Your task to perform on an android device: toggle notifications settings in the gmail app Image 0: 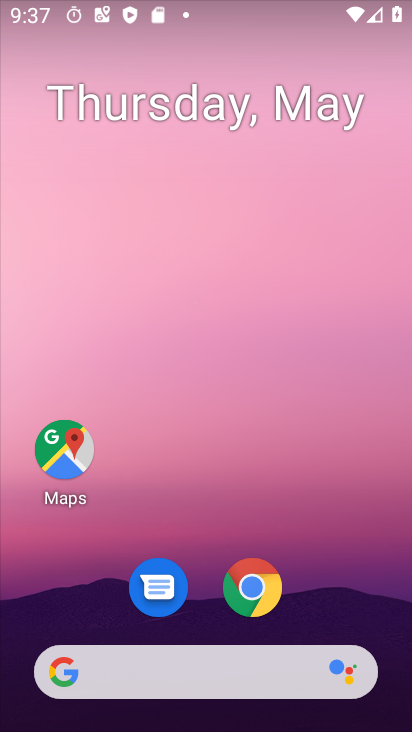
Step 0: drag from (354, 610) to (304, 13)
Your task to perform on an android device: toggle notifications settings in the gmail app Image 1: 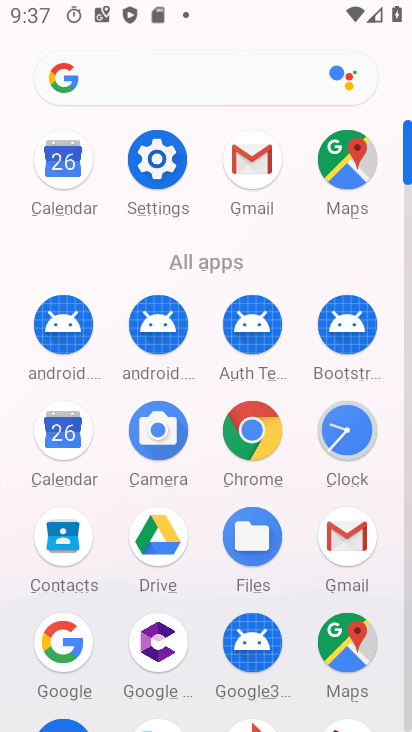
Step 1: click (258, 155)
Your task to perform on an android device: toggle notifications settings in the gmail app Image 2: 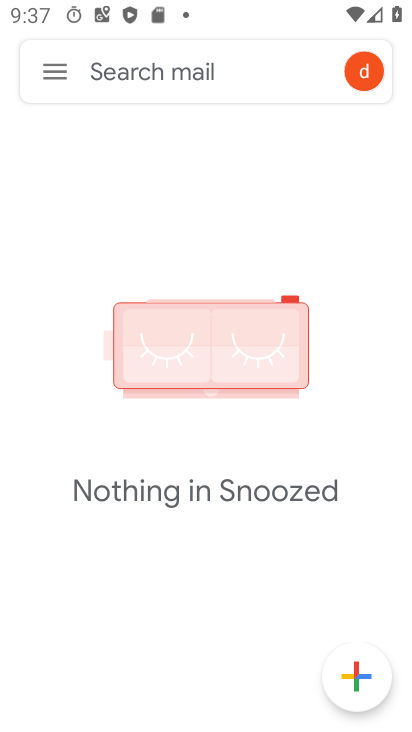
Step 2: click (48, 74)
Your task to perform on an android device: toggle notifications settings in the gmail app Image 3: 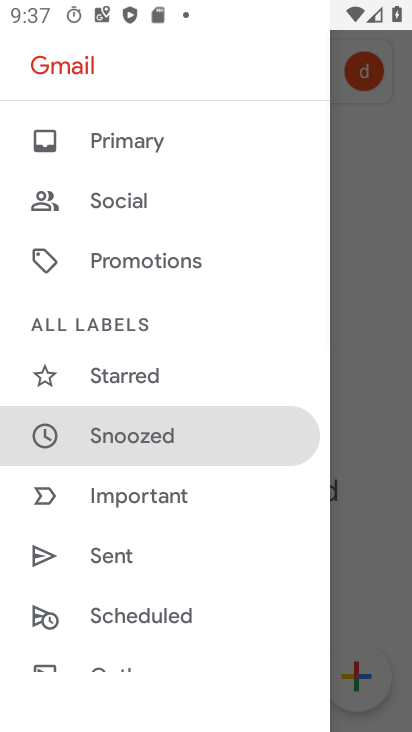
Step 3: drag from (246, 633) to (207, 123)
Your task to perform on an android device: toggle notifications settings in the gmail app Image 4: 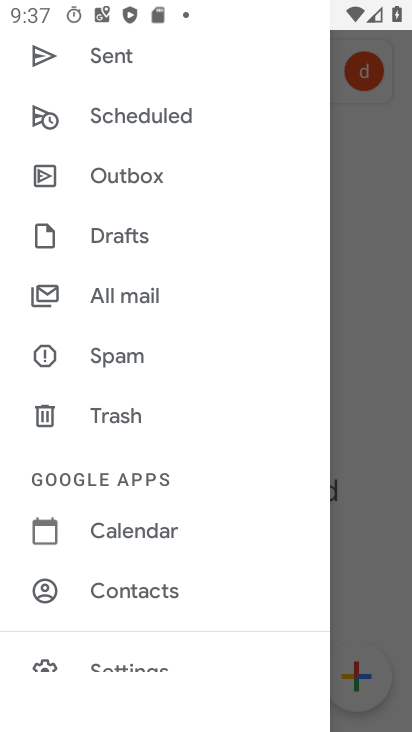
Step 4: drag from (236, 587) to (199, 180)
Your task to perform on an android device: toggle notifications settings in the gmail app Image 5: 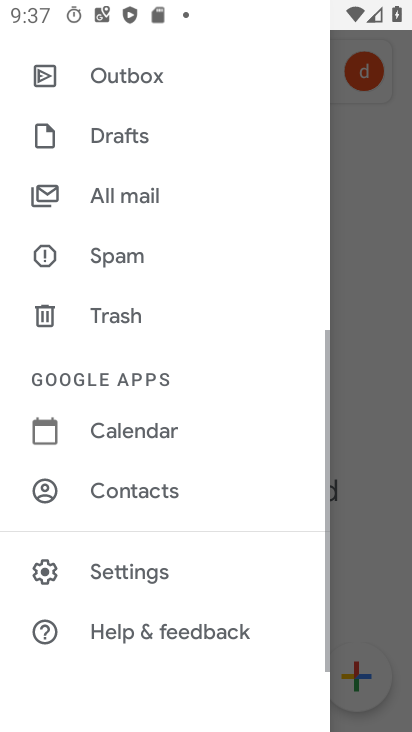
Step 5: click (126, 577)
Your task to perform on an android device: toggle notifications settings in the gmail app Image 6: 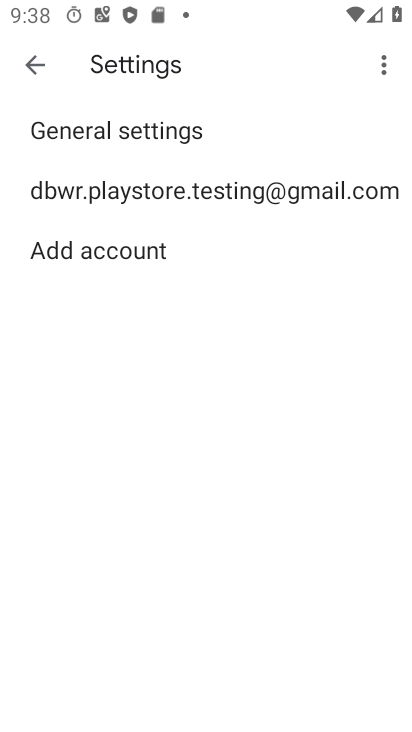
Step 6: click (70, 141)
Your task to perform on an android device: toggle notifications settings in the gmail app Image 7: 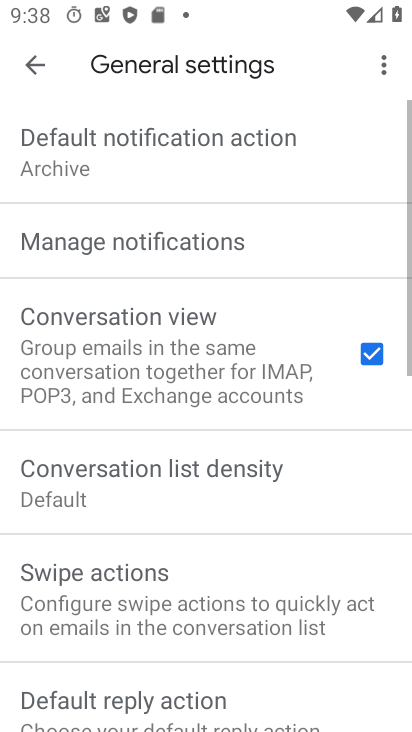
Step 7: click (79, 235)
Your task to perform on an android device: toggle notifications settings in the gmail app Image 8: 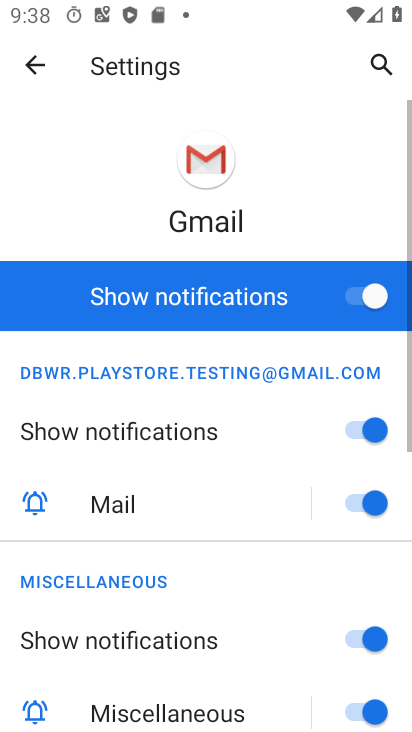
Step 8: click (385, 277)
Your task to perform on an android device: toggle notifications settings in the gmail app Image 9: 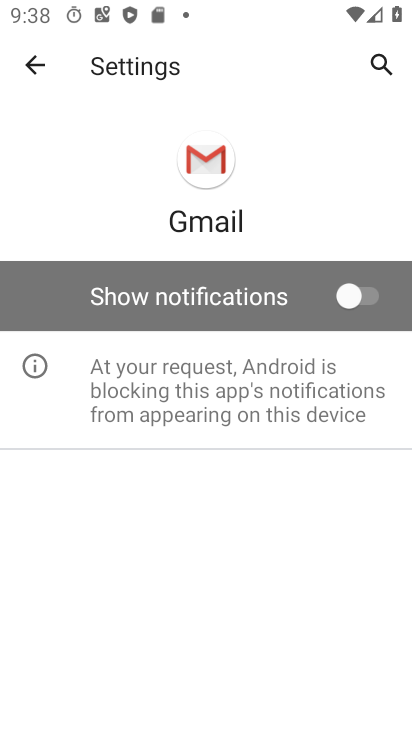
Step 9: task complete